Your task to perform on an android device: refresh tabs in the chrome app Image 0: 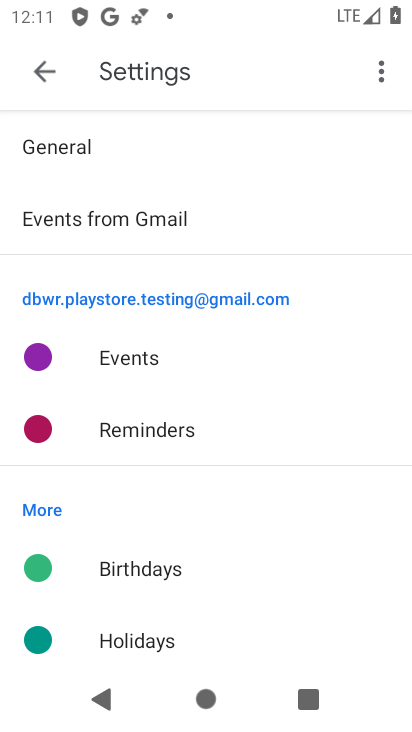
Step 0: press home button
Your task to perform on an android device: refresh tabs in the chrome app Image 1: 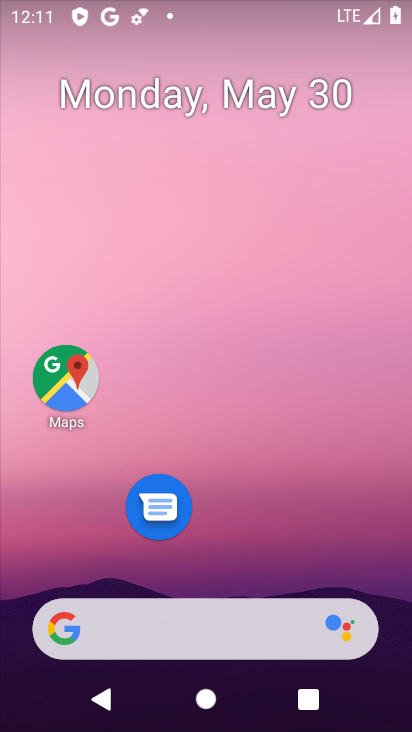
Step 1: drag from (298, 522) to (268, 35)
Your task to perform on an android device: refresh tabs in the chrome app Image 2: 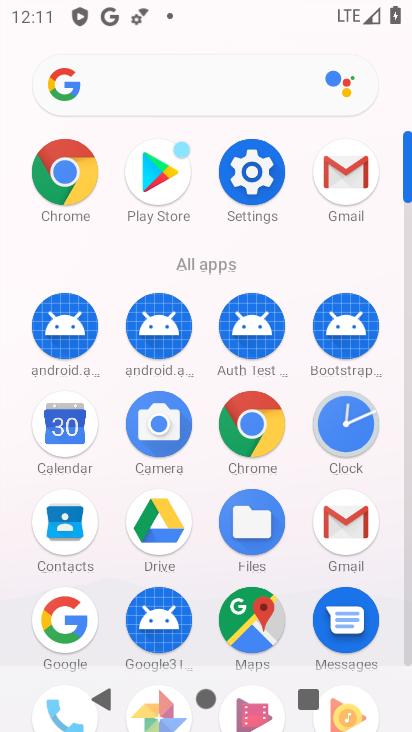
Step 2: click (256, 424)
Your task to perform on an android device: refresh tabs in the chrome app Image 3: 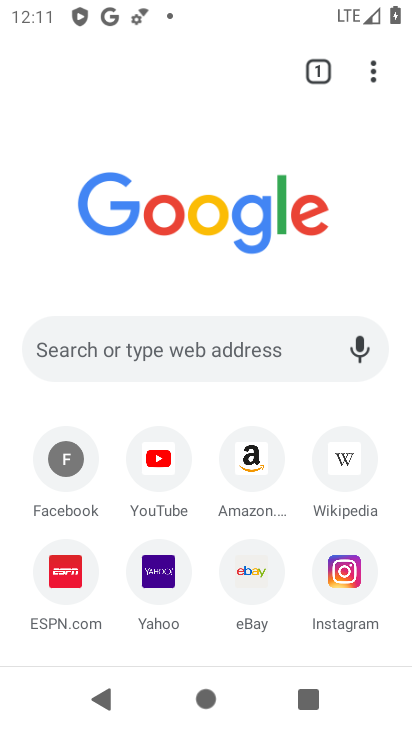
Step 3: click (372, 72)
Your task to perform on an android device: refresh tabs in the chrome app Image 4: 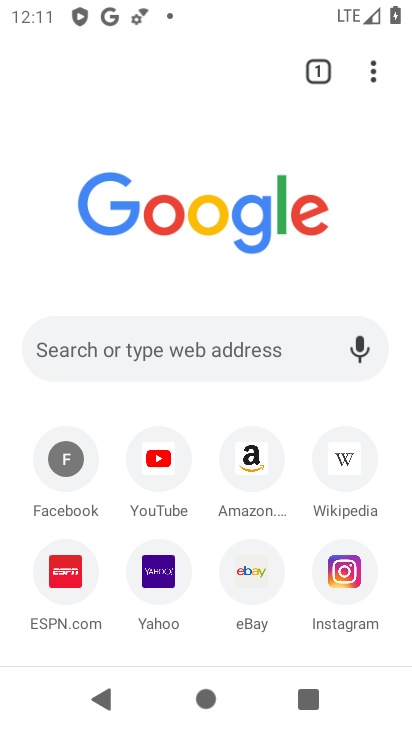
Step 4: click (363, 84)
Your task to perform on an android device: refresh tabs in the chrome app Image 5: 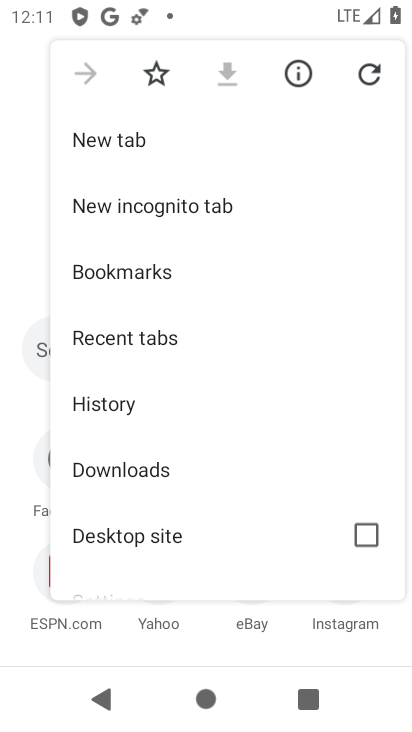
Step 5: click (378, 75)
Your task to perform on an android device: refresh tabs in the chrome app Image 6: 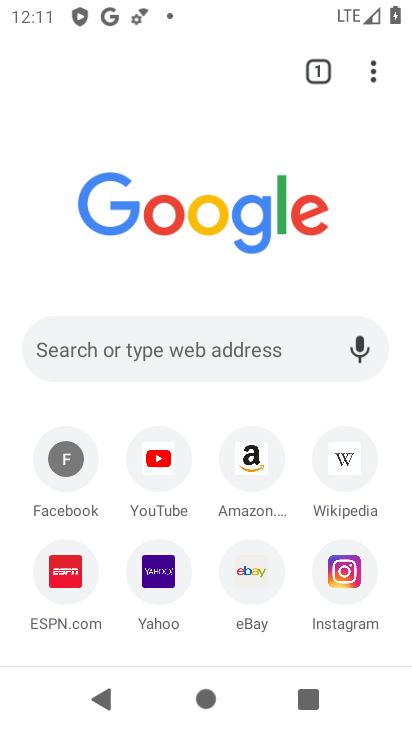
Step 6: task complete